Your task to perform on an android device: Open Yahoo.com Image 0: 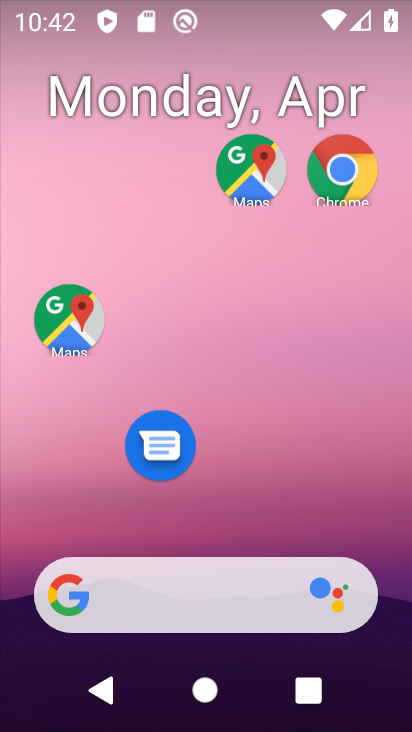
Step 0: click (205, 582)
Your task to perform on an android device: Open Yahoo.com Image 1: 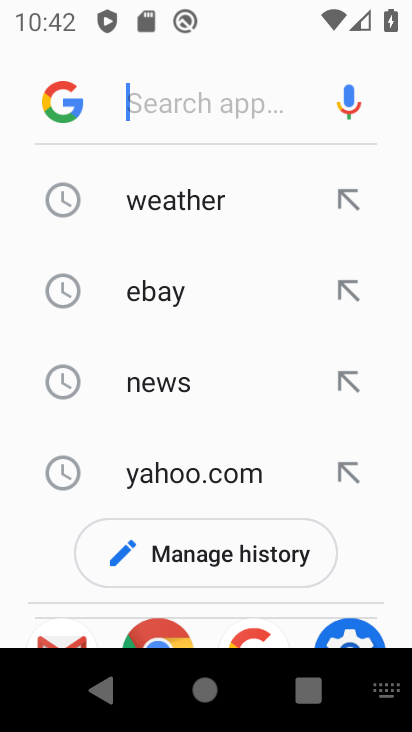
Step 1: click (193, 473)
Your task to perform on an android device: Open Yahoo.com Image 2: 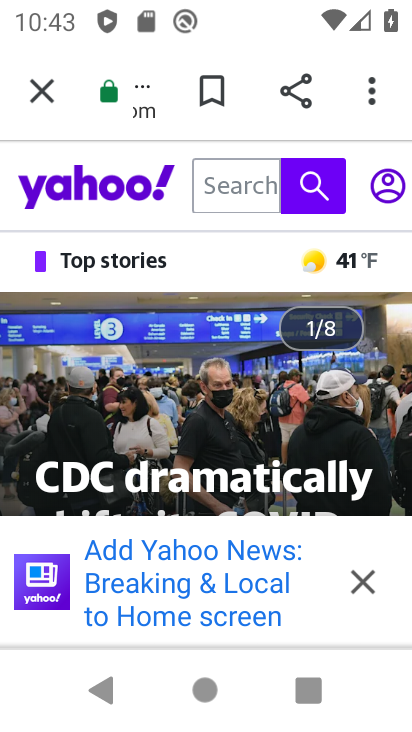
Step 2: click (359, 573)
Your task to perform on an android device: Open Yahoo.com Image 3: 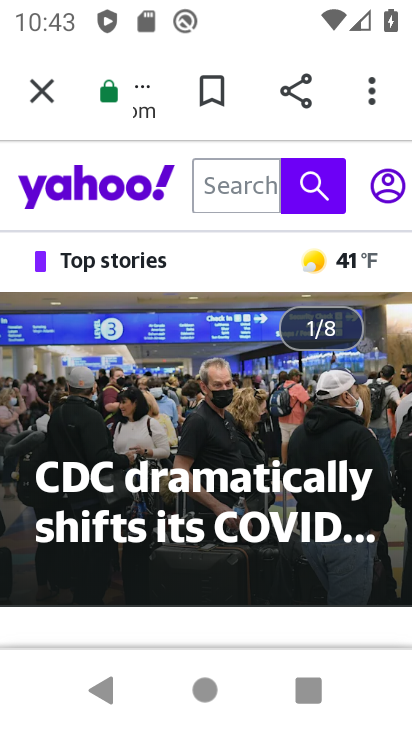
Step 3: task complete